Your task to perform on an android device: check storage Image 0: 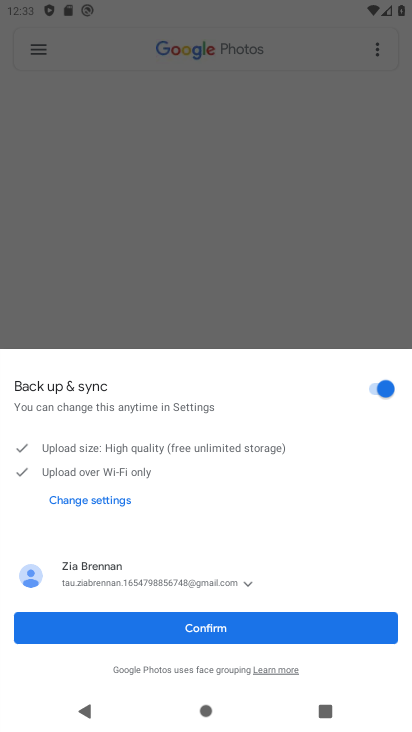
Step 0: press home button
Your task to perform on an android device: check storage Image 1: 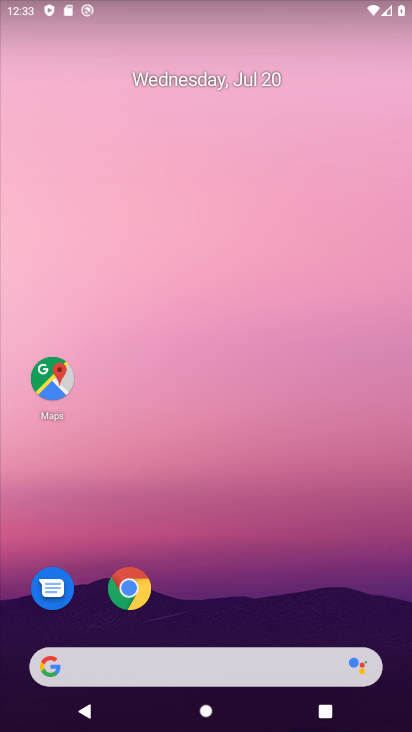
Step 1: drag from (38, 629) to (262, 102)
Your task to perform on an android device: check storage Image 2: 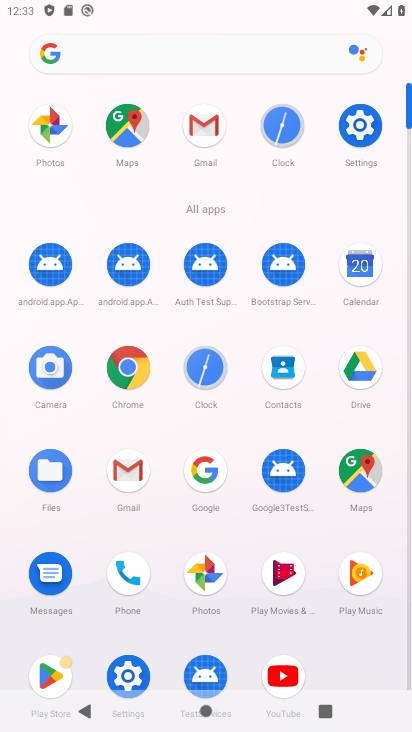
Step 2: click (357, 124)
Your task to perform on an android device: check storage Image 3: 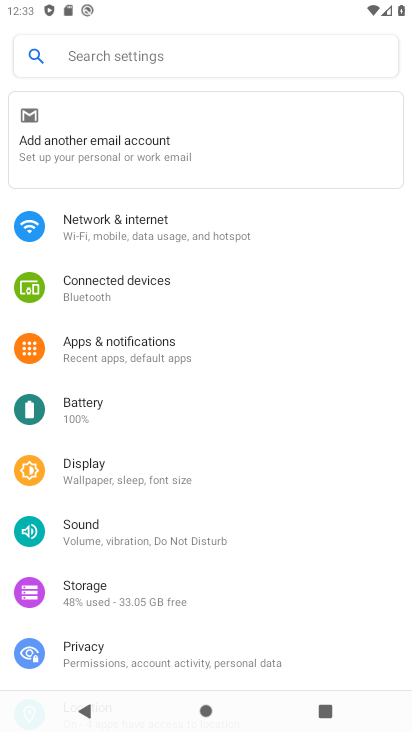
Step 3: click (79, 594)
Your task to perform on an android device: check storage Image 4: 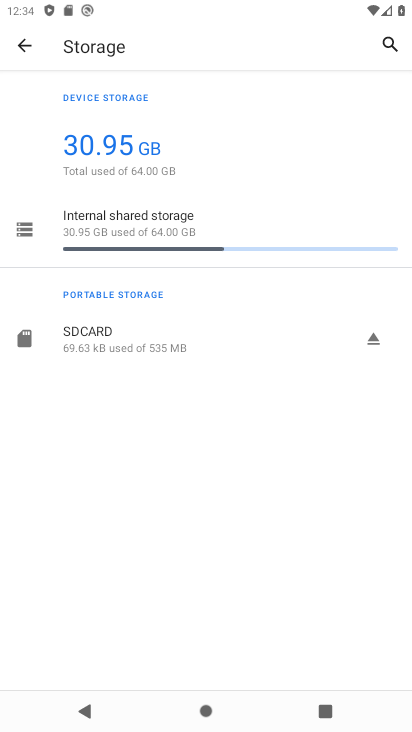
Step 4: task complete